Your task to perform on an android device: Open Google Chrome and open the bookmarks view Image 0: 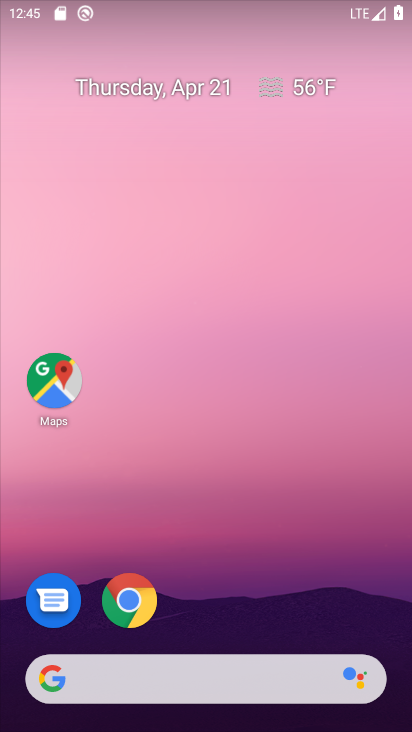
Step 0: click (140, 596)
Your task to perform on an android device: Open Google Chrome and open the bookmarks view Image 1: 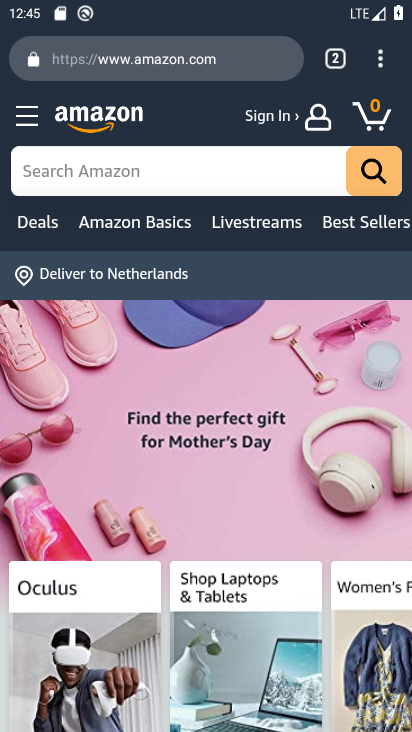
Step 1: click (380, 62)
Your task to perform on an android device: Open Google Chrome and open the bookmarks view Image 2: 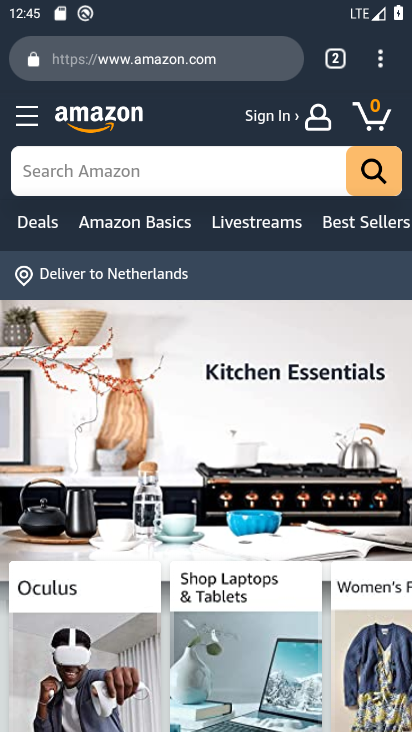
Step 2: click (380, 62)
Your task to perform on an android device: Open Google Chrome and open the bookmarks view Image 3: 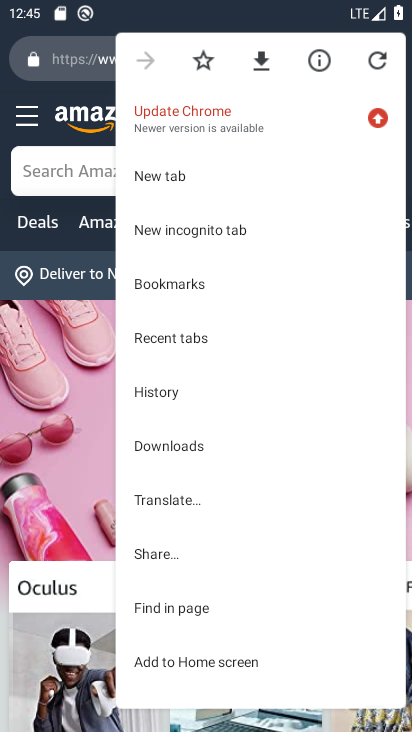
Step 3: click (211, 291)
Your task to perform on an android device: Open Google Chrome and open the bookmarks view Image 4: 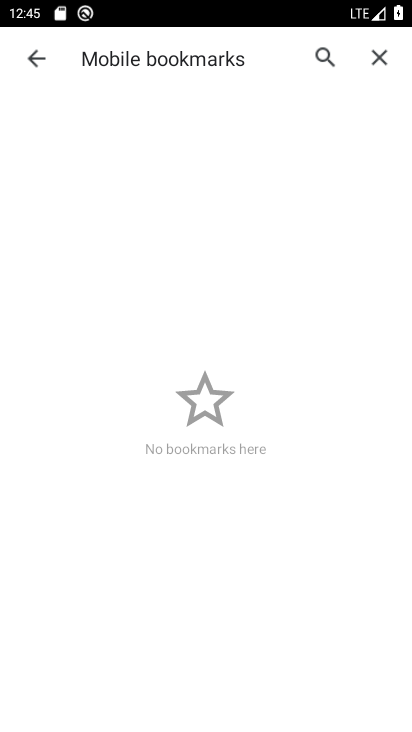
Step 4: click (37, 53)
Your task to perform on an android device: Open Google Chrome and open the bookmarks view Image 5: 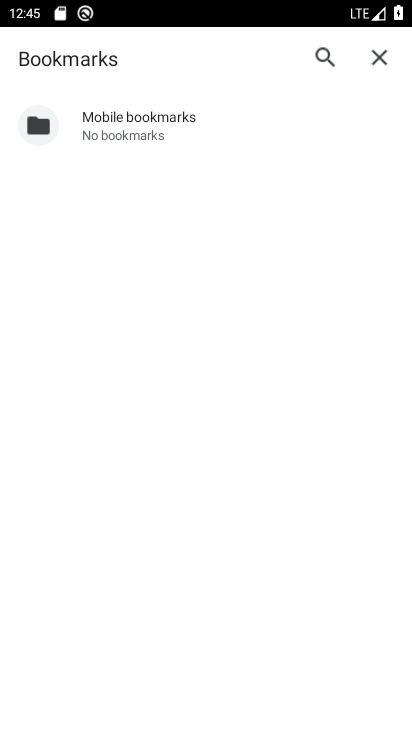
Step 5: click (118, 122)
Your task to perform on an android device: Open Google Chrome and open the bookmarks view Image 6: 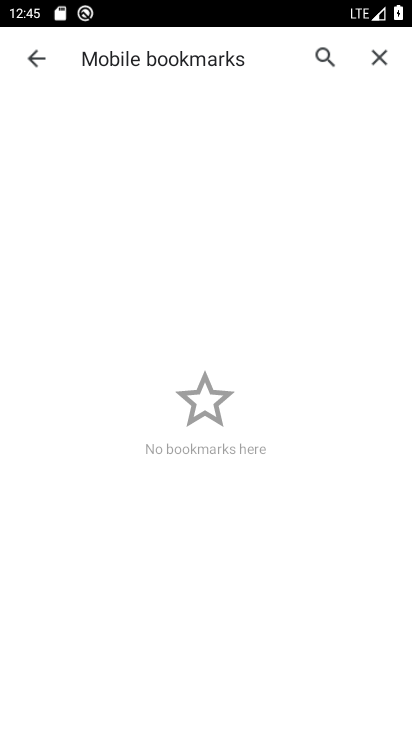
Step 6: task complete